Your task to perform on an android device: Go to calendar. Show me events next week Image 0: 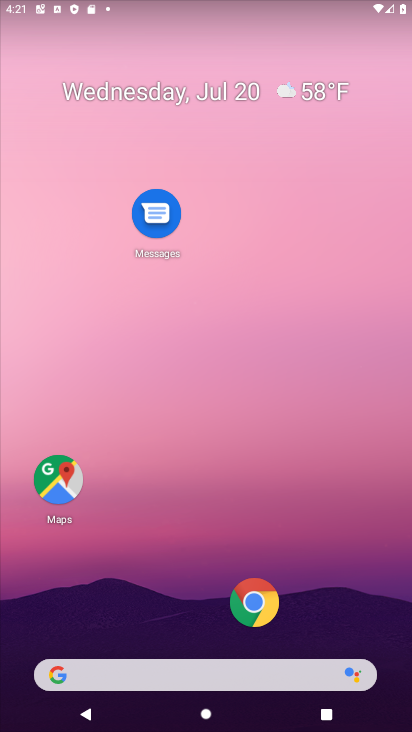
Step 0: drag from (181, 611) to (268, 196)
Your task to perform on an android device: Go to calendar. Show me events next week Image 1: 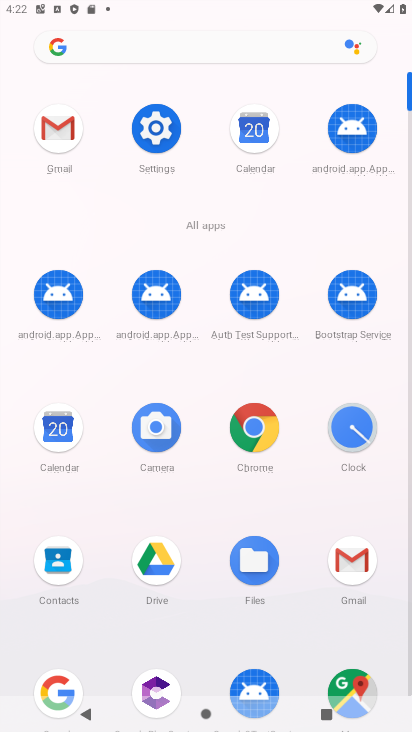
Step 1: click (255, 159)
Your task to perform on an android device: Go to calendar. Show me events next week Image 2: 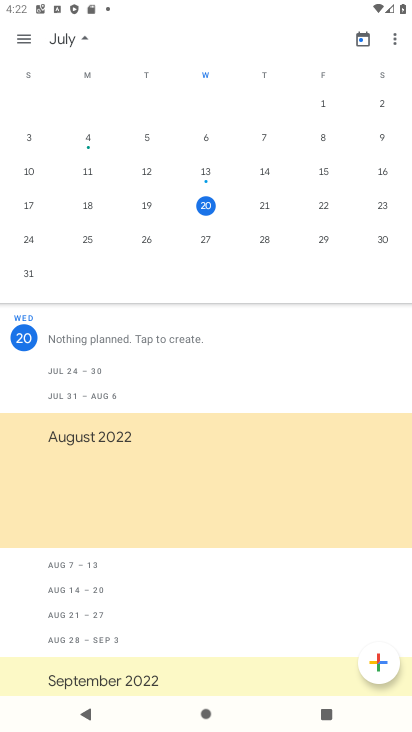
Step 2: click (21, 39)
Your task to perform on an android device: Go to calendar. Show me events next week Image 3: 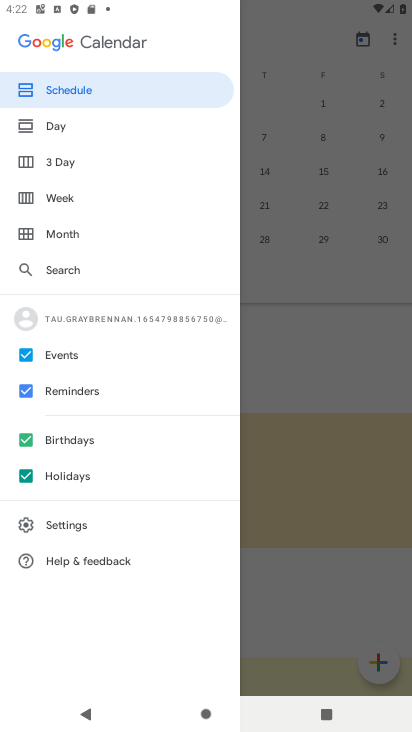
Step 3: click (48, 198)
Your task to perform on an android device: Go to calendar. Show me events next week Image 4: 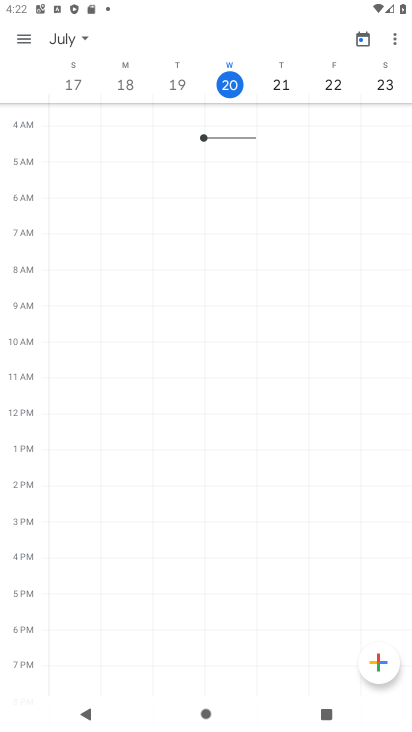
Step 4: click (66, 52)
Your task to perform on an android device: Go to calendar. Show me events next week Image 5: 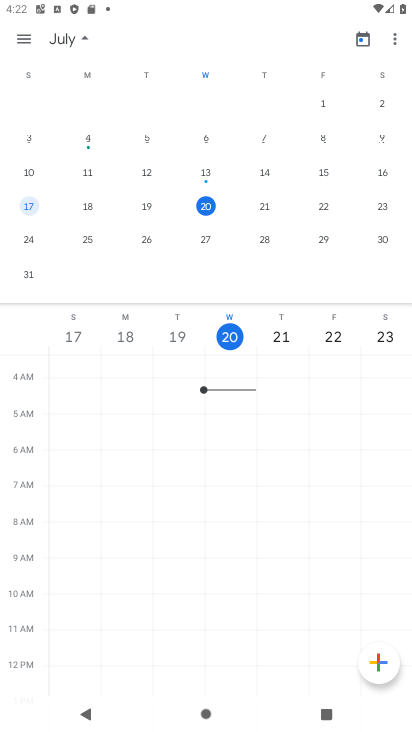
Step 5: click (30, 241)
Your task to perform on an android device: Go to calendar. Show me events next week Image 6: 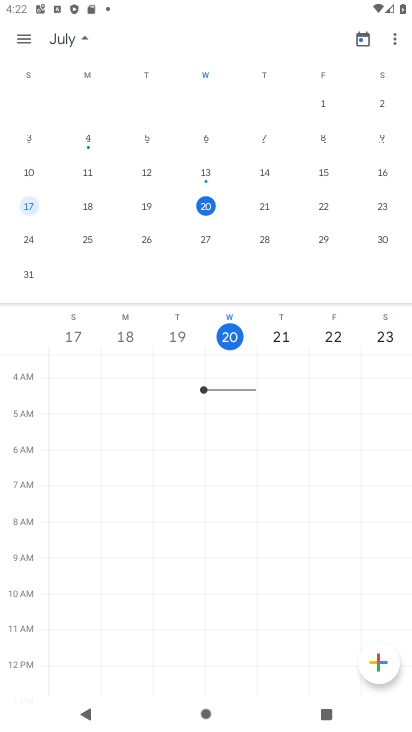
Step 6: click (30, 241)
Your task to perform on an android device: Go to calendar. Show me events next week Image 7: 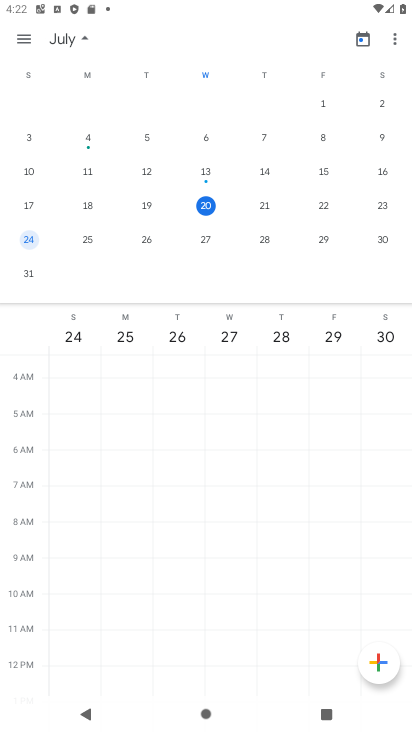
Step 7: task complete